Your task to perform on an android device: turn on airplane mode Image 0: 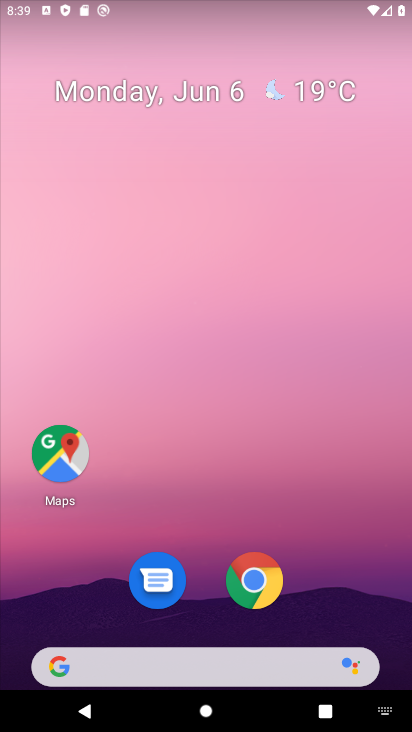
Step 0: drag from (324, 584) to (345, 172)
Your task to perform on an android device: turn on airplane mode Image 1: 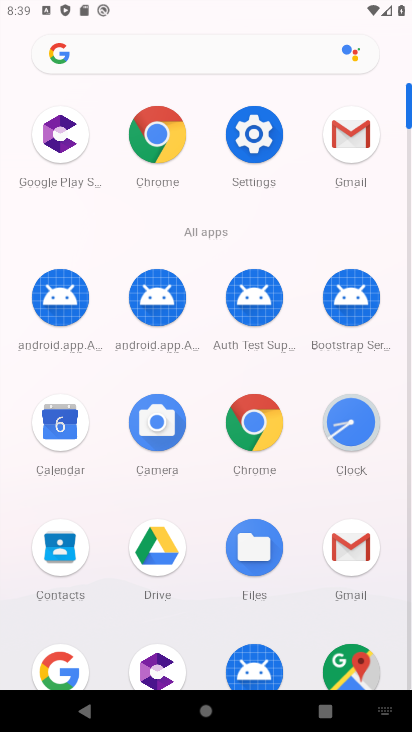
Step 1: click (245, 135)
Your task to perform on an android device: turn on airplane mode Image 2: 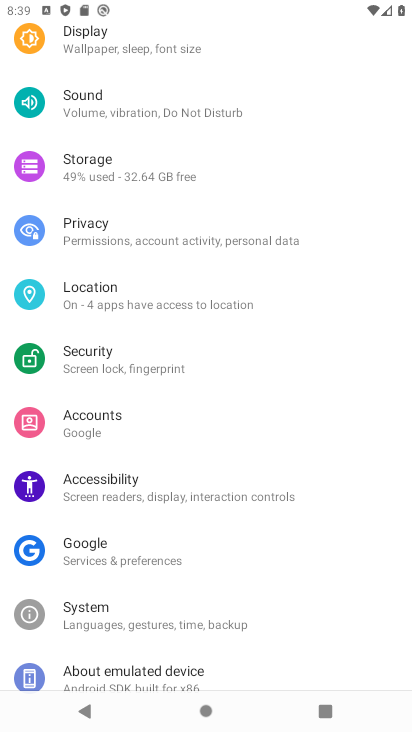
Step 2: drag from (249, 206) to (216, 605)
Your task to perform on an android device: turn on airplane mode Image 3: 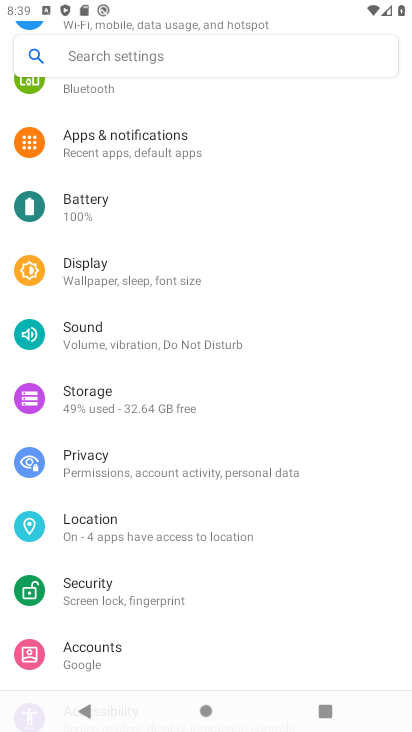
Step 3: drag from (280, 312) to (335, 692)
Your task to perform on an android device: turn on airplane mode Image 4: 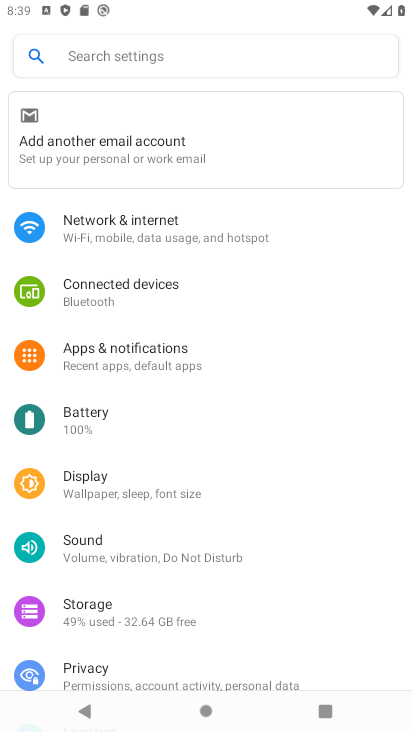
Step 4: click (250, 245)
Your task to perform on an android device: turn on airplane mode Image 5: 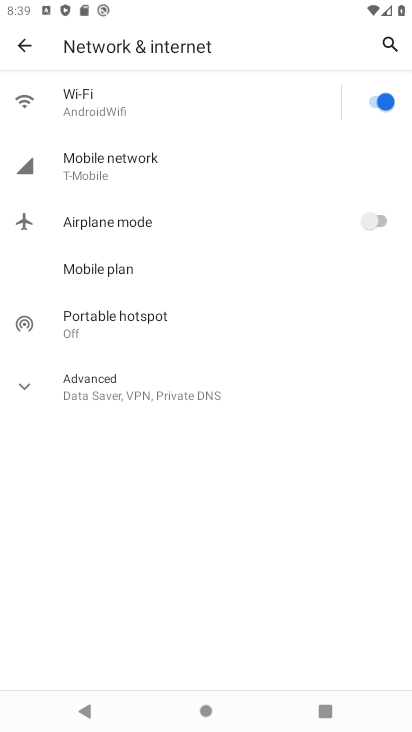
Step 5: click (372, 229)
Your task to perform on an android device: turn on airplane mode Image 6: 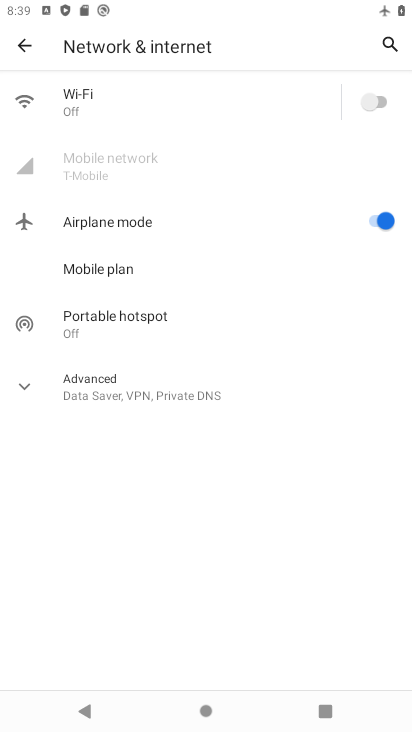
Step 6: task complete